Your task to perform on an android device: Open display settings Image 0: 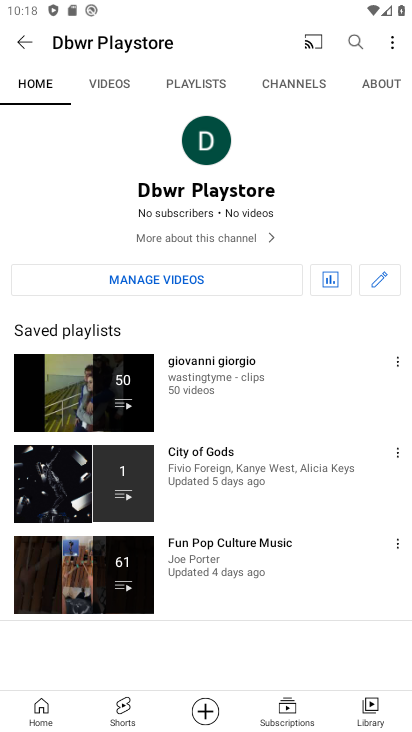
Step 0: press home button
Your task to perform on an android device: Open display settings Image 1: 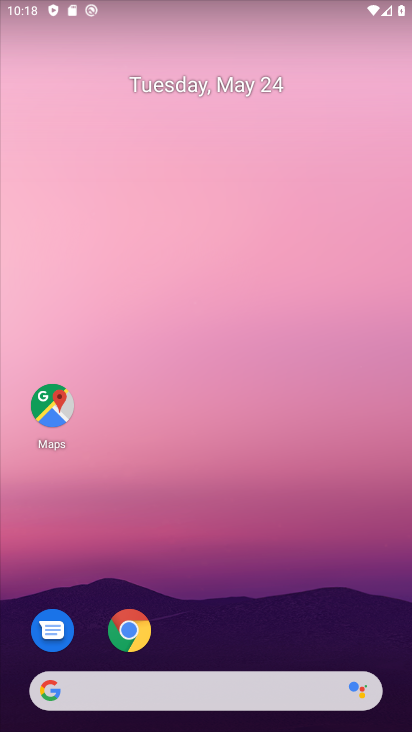
Step 1: drag from (220, 643) to (226, 103)
Your task to perform on an android device: Open display settings Image 2: 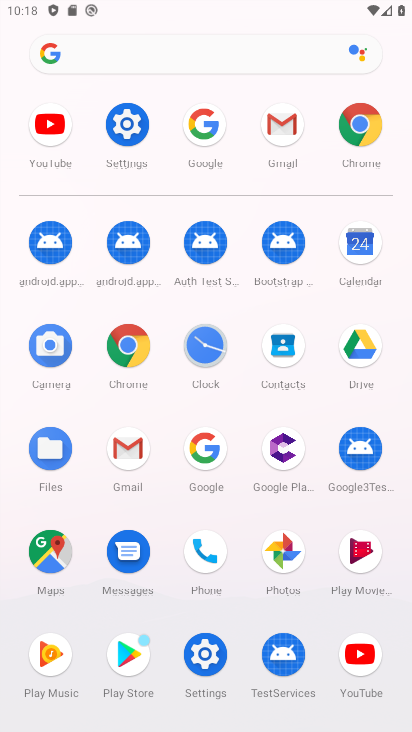
Step 2: click (124, 122)
Your task to perform on an android device: Open display settings Image 3: 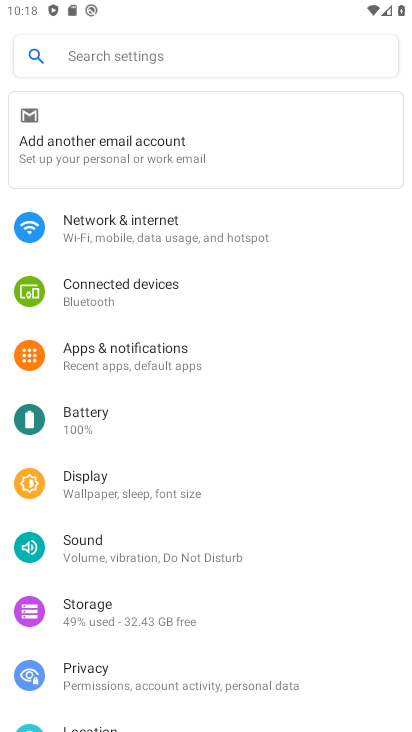
Step 3: click (114, 479)
Your task to perform on an android device: Open display settings Image 4: 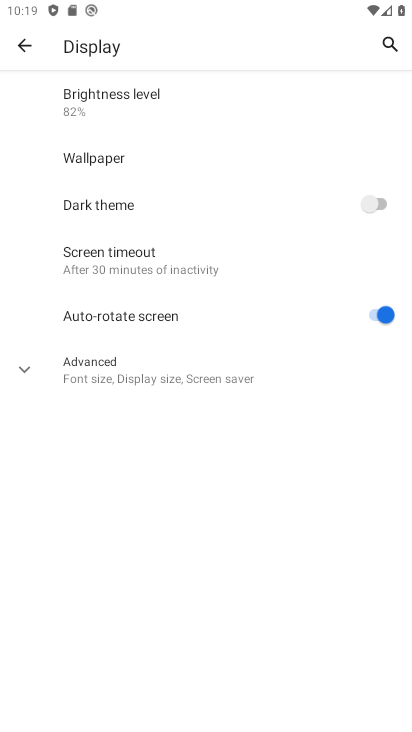
Step 4: click (23, 365)
Your task to perform on an android device: Open display settings Image 5: 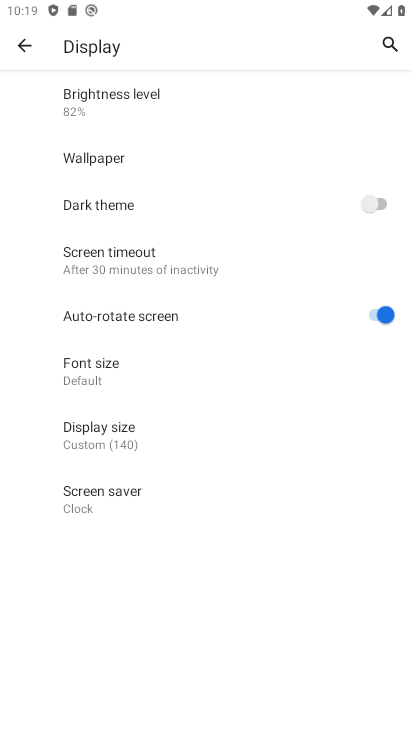
Step 5: task complete